Your task to perform on an android device: turn on the 12-hour format for clock Image 0: 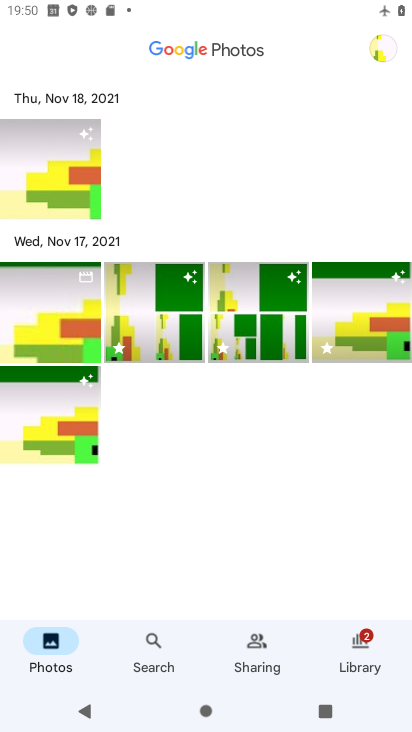
Step 0: press home button
Your task to perform on an android device: turn on the 12-hour format for clock Image 1: 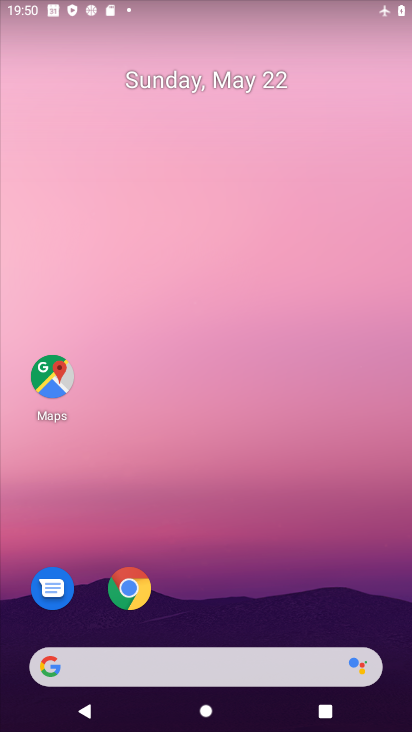
Step 1: drag from (262, 543) to (140, 70)
Your task to perform on an android device: turn on the 12-hour format for clock Image 2: 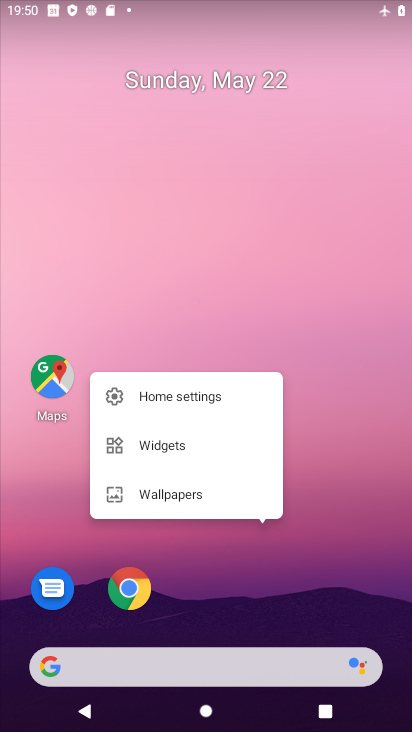
Step 2: click (338, 414)
Your task to perform on an android device: turn on the 12-hour format for clock Image 3: 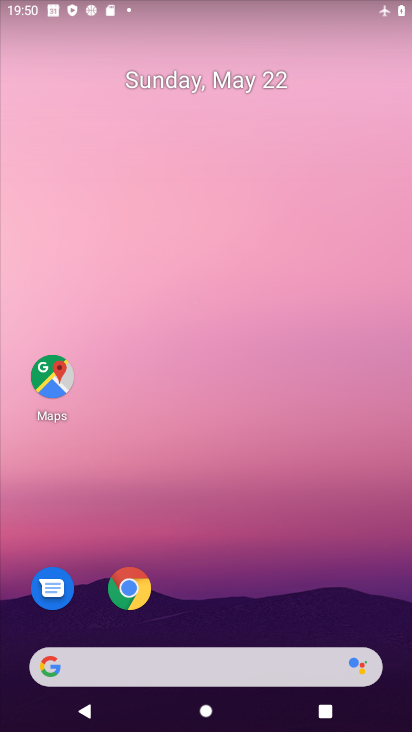
Step 3: drag from (247, 548) to (203, 16)
Your task to perform on an android device: turn on the 12-hour format for clock Image 4: 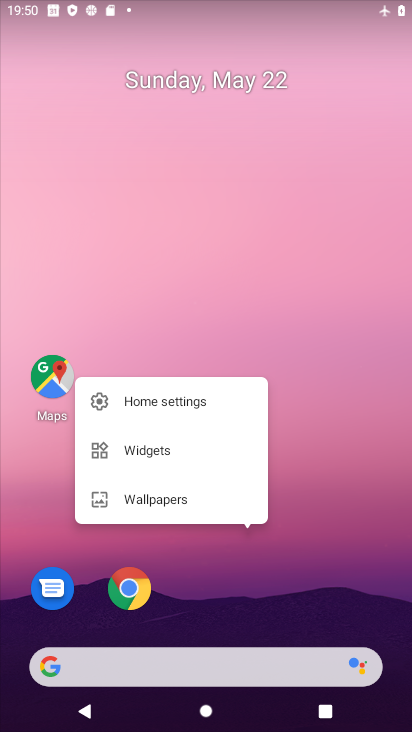
Step 4: click (256, 242)
Your task to perform on an android device: turn on the 12-hour format for clock Image 5: 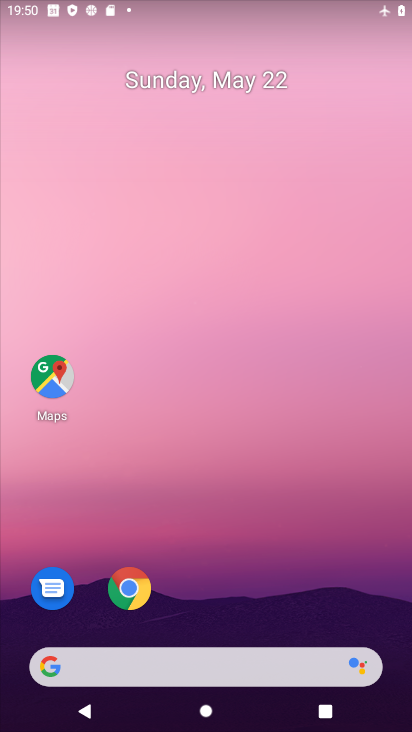
Step 5: drag from (214, 496) to (218, 236)
Your task to perform on an android device: turn on the 12-hour format for clock Image 6: 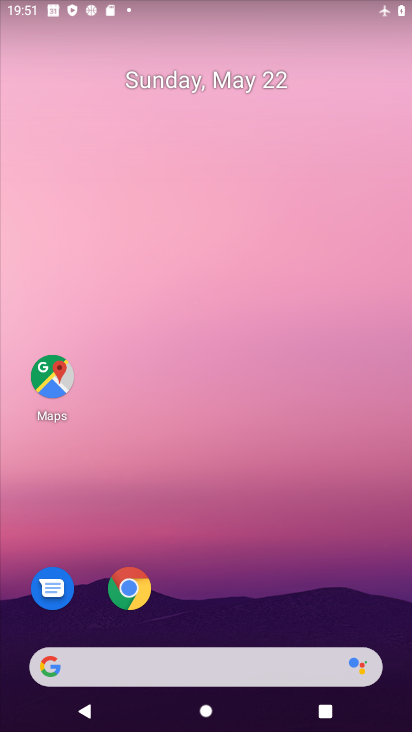
Step 6: drag from (242, 549) to (278, 22)
Your task to perform on an android device: turn on the 12-hour format for clock Image 7: 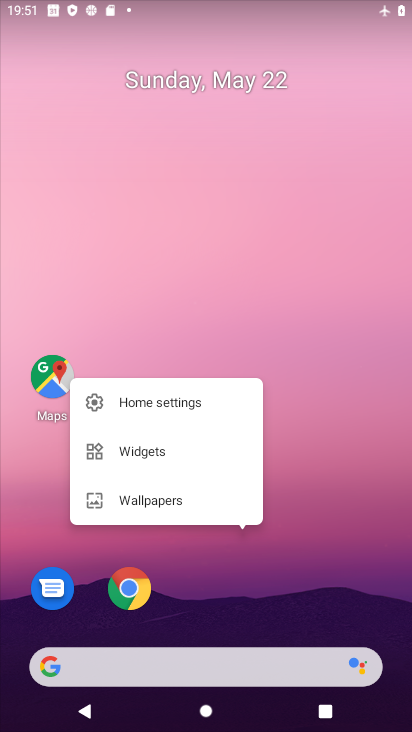
Step 7: click (375, 250)
Your task to perform on an android device: turn on the 12-hour format for clock Image 8: 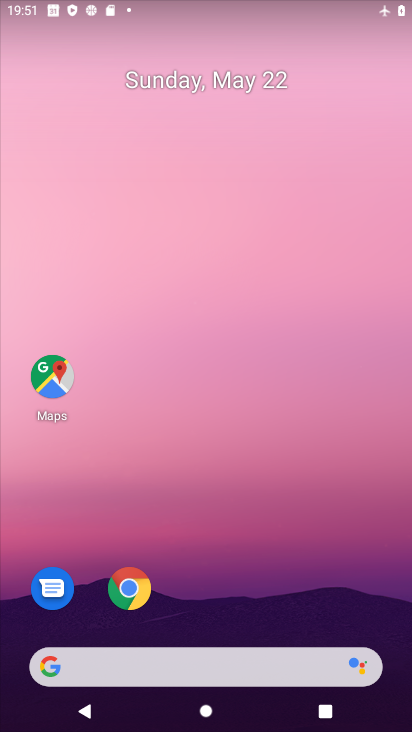
Step 8: drag from (250, 483) to (265, 15)
Your task to perform on an android device: turn on the 12-hour format for clock Image 9: 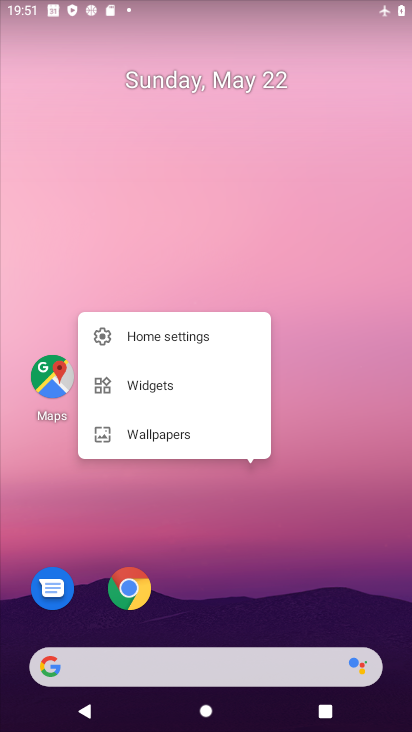
Step 9: click (349, 378)
Your task to perform on an android device: turn on the 12-hour format for clock Image 10: 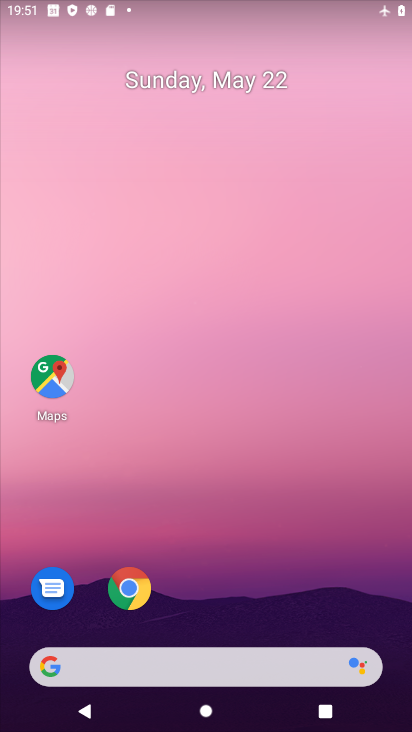
Step 10: drag from (242, 579) to (212, 105)
Your task to perform on an android device: turn on the 12-hour format for clock Image 11: 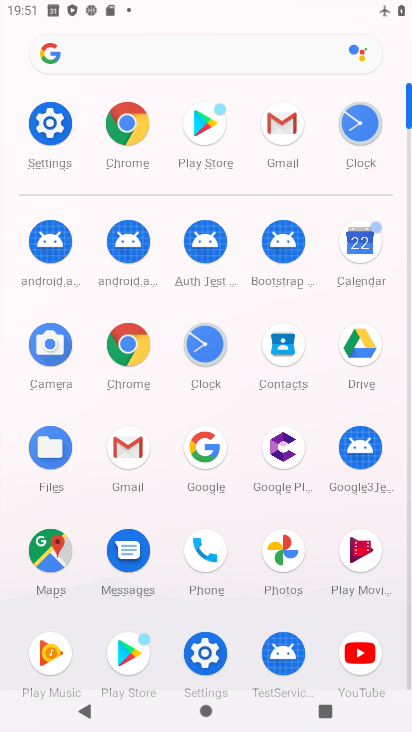
Step 11: click (359, 115)
Your task to perform on an android device: turn on the 12-hour format for clock Image 12: 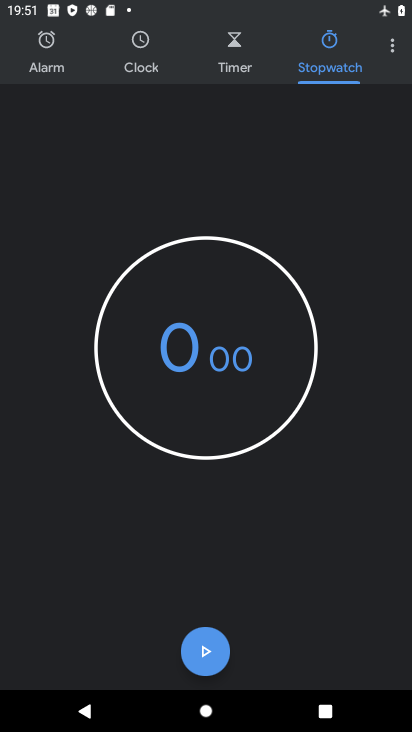
Step 12: click (399, 43)
Your task to perform on an android device: turn on the 12-hour format for clock Image 13: 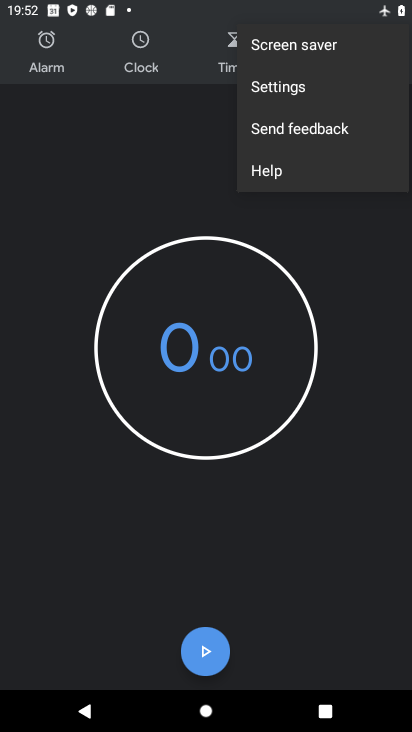
Step 13: click (279, 84)
Your task to perform on an android device: turn on the 12-hour format for clock Image 14: 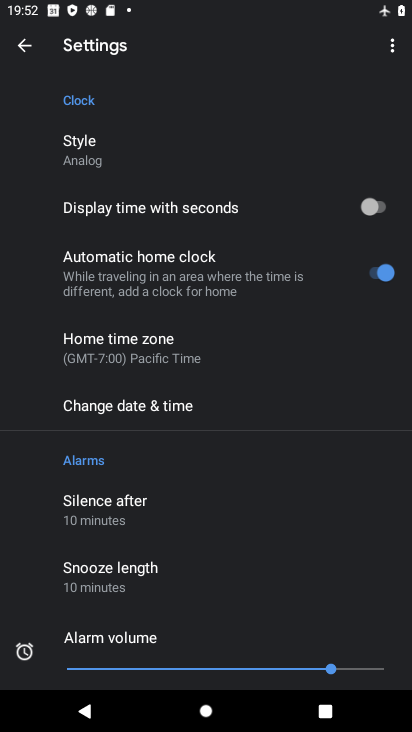
Step 14: click (151, 406)
Your task to perform on an android device: turn on the 12-hour format for clock Image 15: 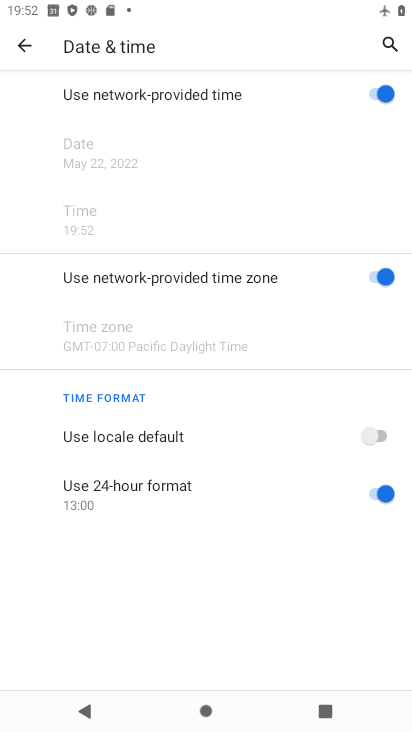
Step 15: click (372, 434)
Your task to perform on an android device: turn on the 12-hour format for clock Image 16: 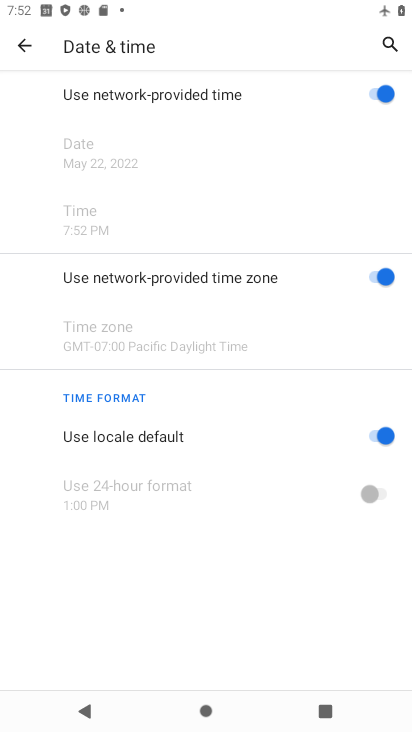
Step 16: task complete